Your task to perform on an android device: refresh tabs in the chrome app Image 0: 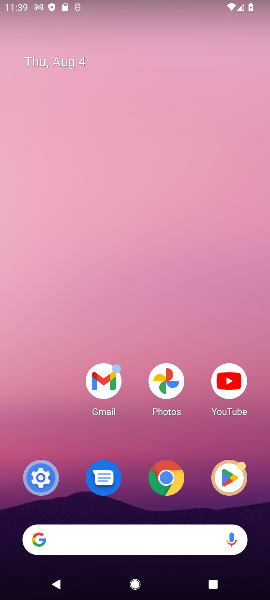
Step 0: drag from (136, 458) to (139, 113)
Your task to perform on an android device: refresh tabs in the chrome app Image 1: 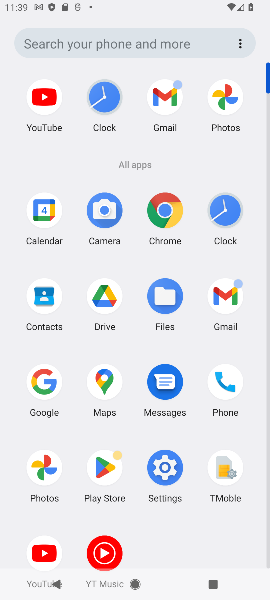
Step 1: click (170, 208)
Your task to perform on an android device: refresh tabs in the chrome app Image 2: 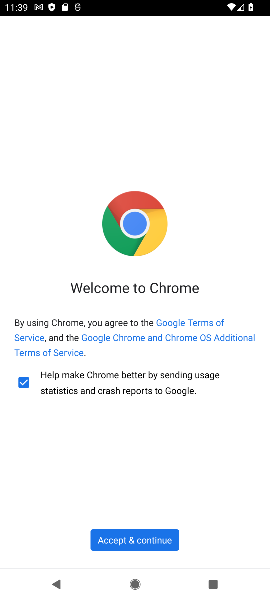
Step 2: click (147, 529)
Your task to perform on an android device: refresh tabs in the chrome app Image 3: 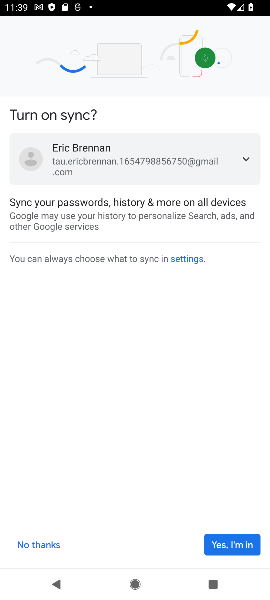
Step 3: click (250, 541)
Your task to perform on an android device: refresh tabs in the chrome app Image 4: 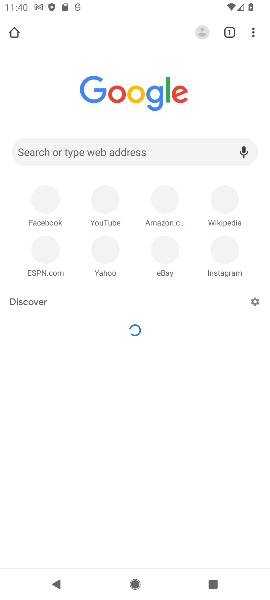
Step 4: click (251, 30)
Your task to perform on an android device: refresh tabs in the chrome app Image 5: 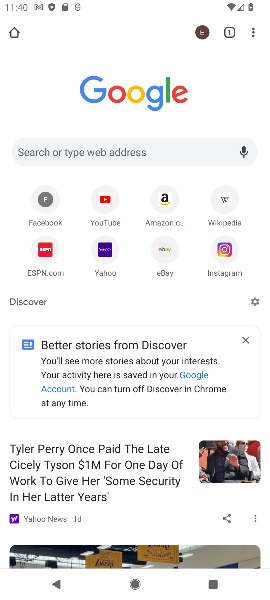
Step 5: task complete